Your task to perform on an android device: Clear all items from cart on newegg. Add "lenovo thinkpad" to the cart on newegg, then select checkout. Image 0: 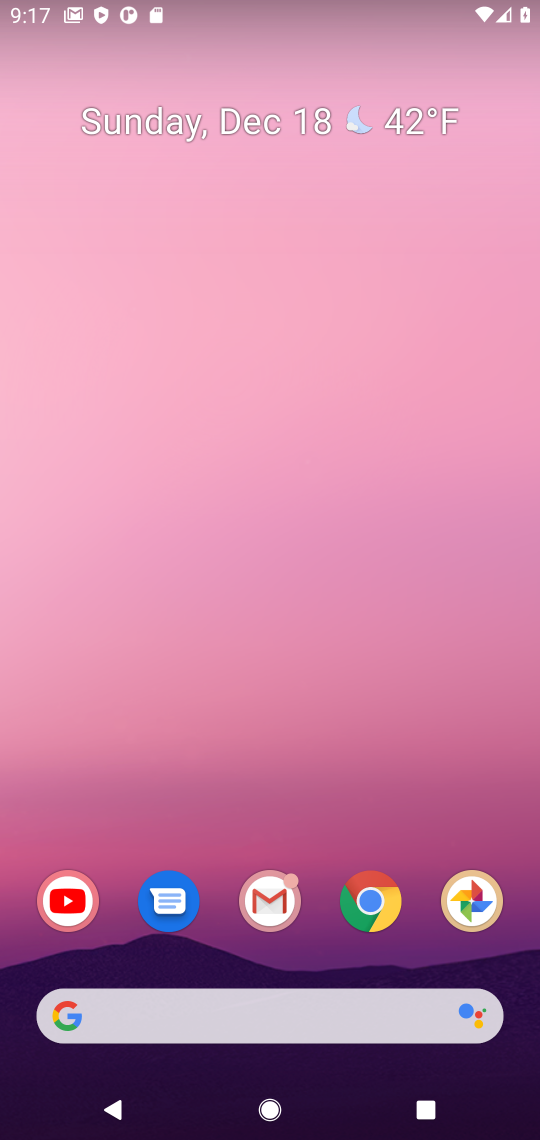
Step 0: click (349, 925)
Your task to perform on an android device: Clear all items from cart on newegg. Add "lenovo thinkpad" to the cart on newegg, then select checkout. Image 1: 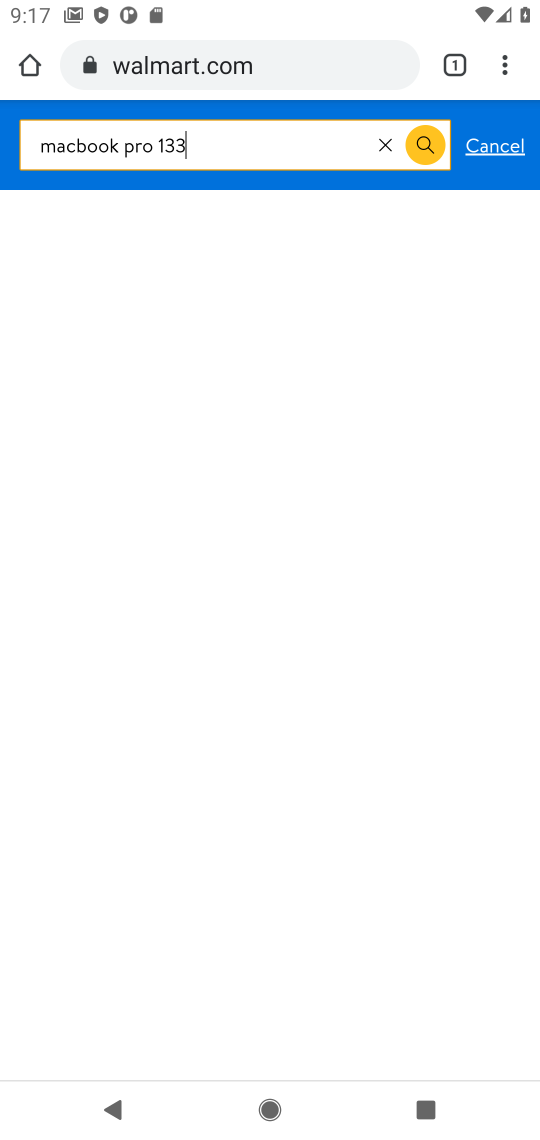
Step 1: click (242, 86)
Your task to perform on an android device: Clear all items from cart on newegg. Add "lenovo thinkpad" to the cart on newegg, then select checkout. Image 2: 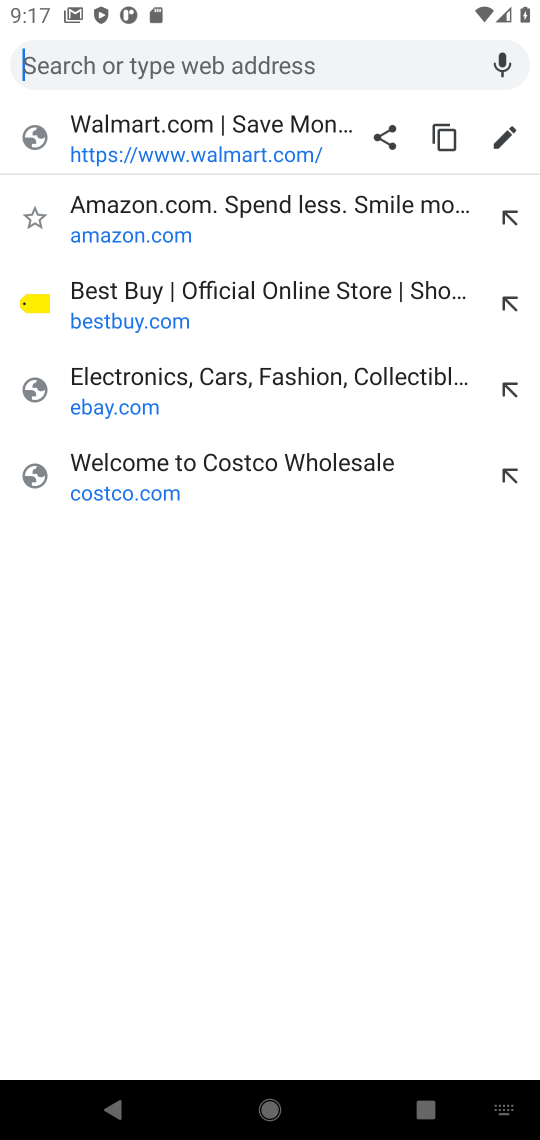
Step 2: type "newegg"
Your task to perform on an android device: Clear all items from cart on newegg. Add "lenovo thinkpad" to the cart on newegg, then select checkout. Image 3: 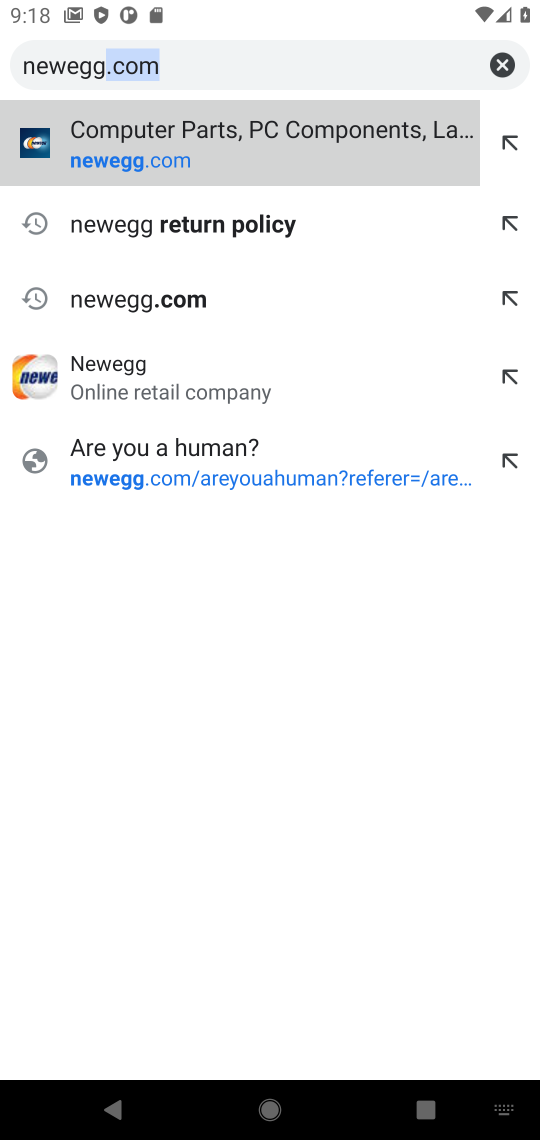
Step 3: click (187, 171)
Your task to perform on an android device: Clear all items from cart on newegg. Add "lenovo thinkpad" to the cart on newegg, then select checkout. Image 4: 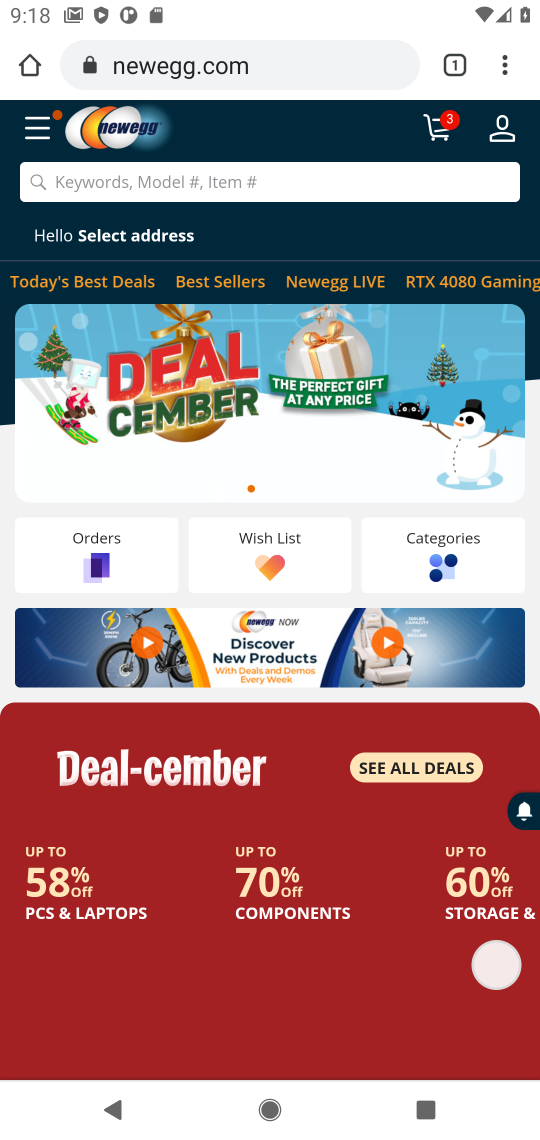
Step 4: click (214, 195)
Your task to perform on an android device: Clear all items from cart on newegg. Add "lenovo thinkpad" to the cart on newegg, then select checkout. Image 5: 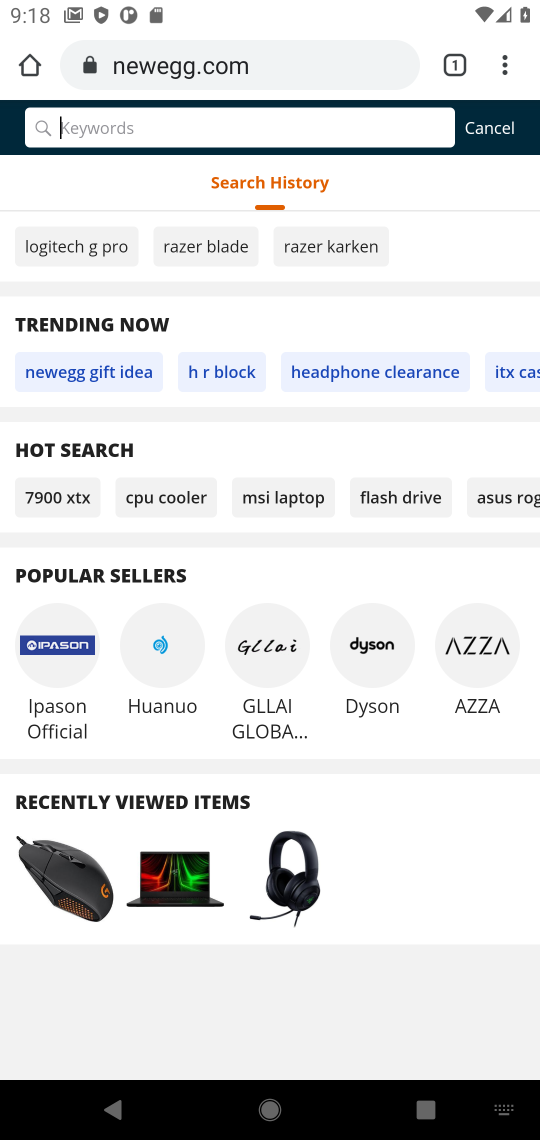
Step 5: type "lenovo thinkpad"
Your task to perform on an android device: Clear all items from cart on newegg. Add "lenovo thinkpad" to the cart on newegg, then select checkout. Image 6: 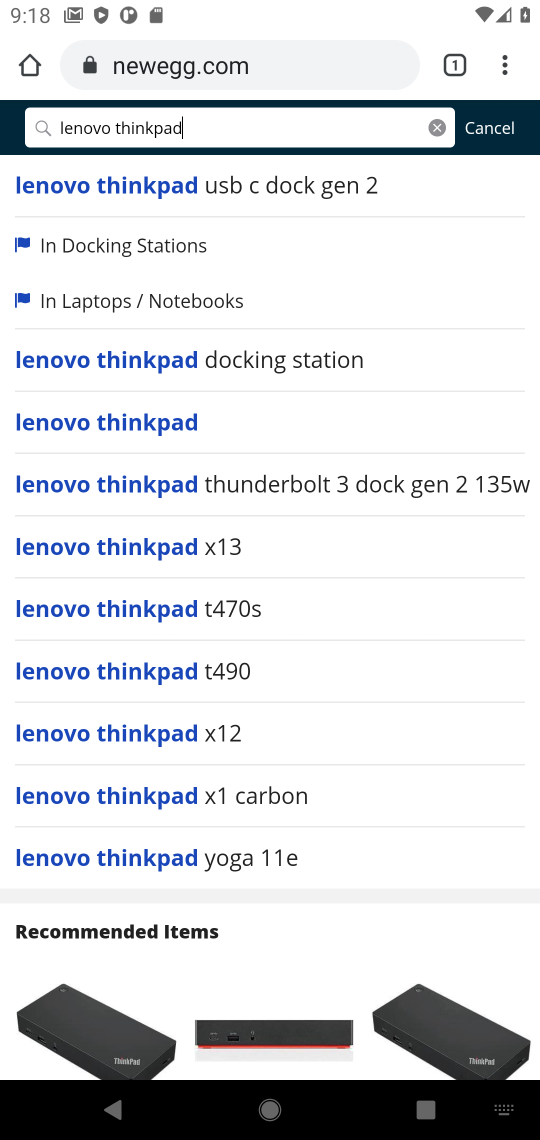
Step 6: click (107, 204)
Your task to perform on an android device: Clear all items from cart on newegg. Add "lenovo thinkpad" to the cart on newegg, then select checkout. Image 7: 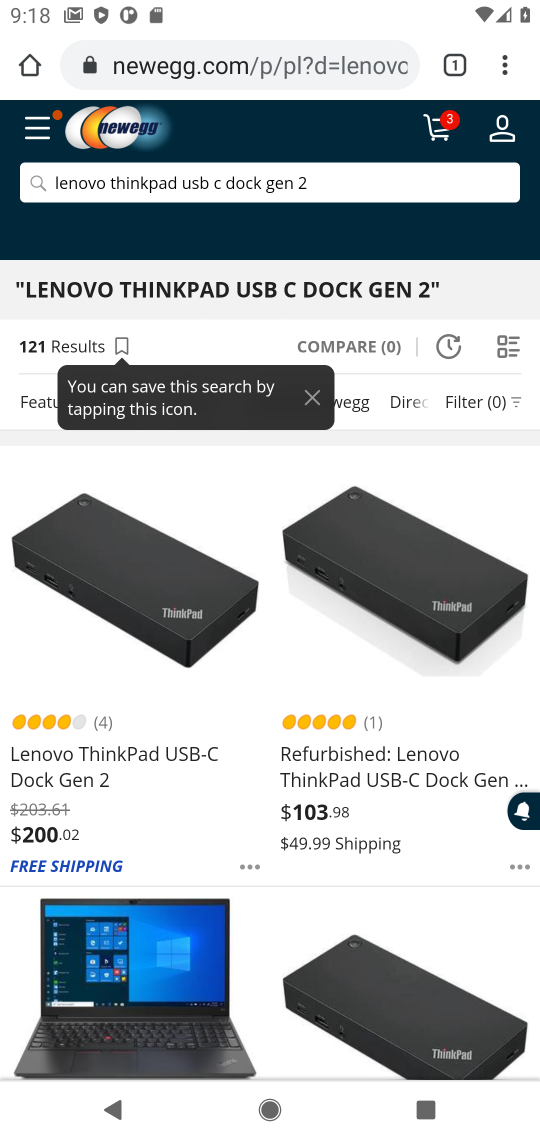
Step 7: click (159, 777)
Your task to perform on an android device: Clear all items from cart on newegg. Add "lenovo thinkpad" to the cart on newegg, then select checkout. Image 8: 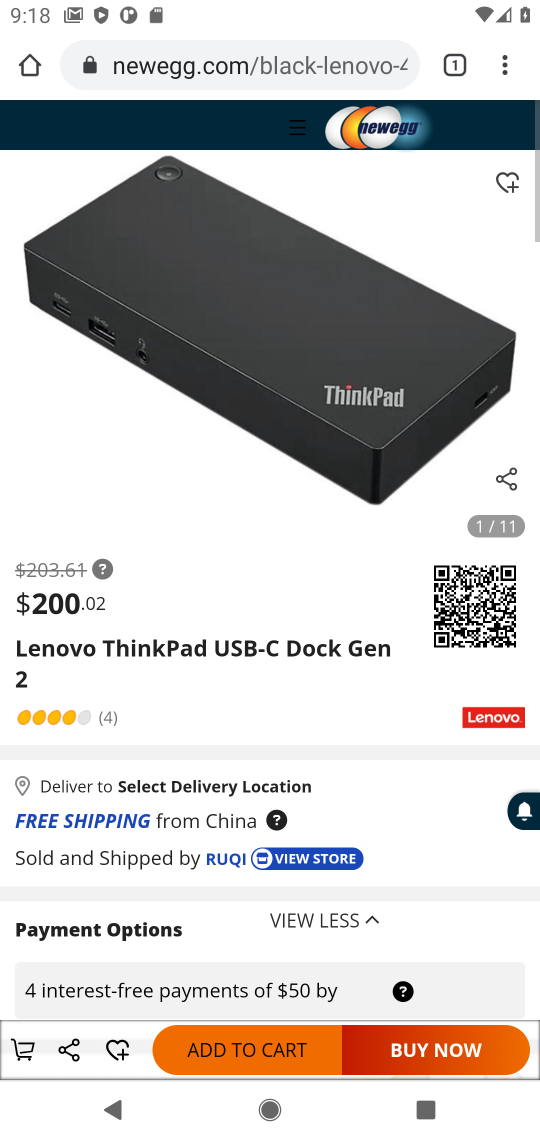
Step 8: click (187, 1046)
Your task to perform on an android device: Clear all items from cart on newegg. Add "lenovo thinkpad" to the cart on newegg, then select checkout. Image 9: 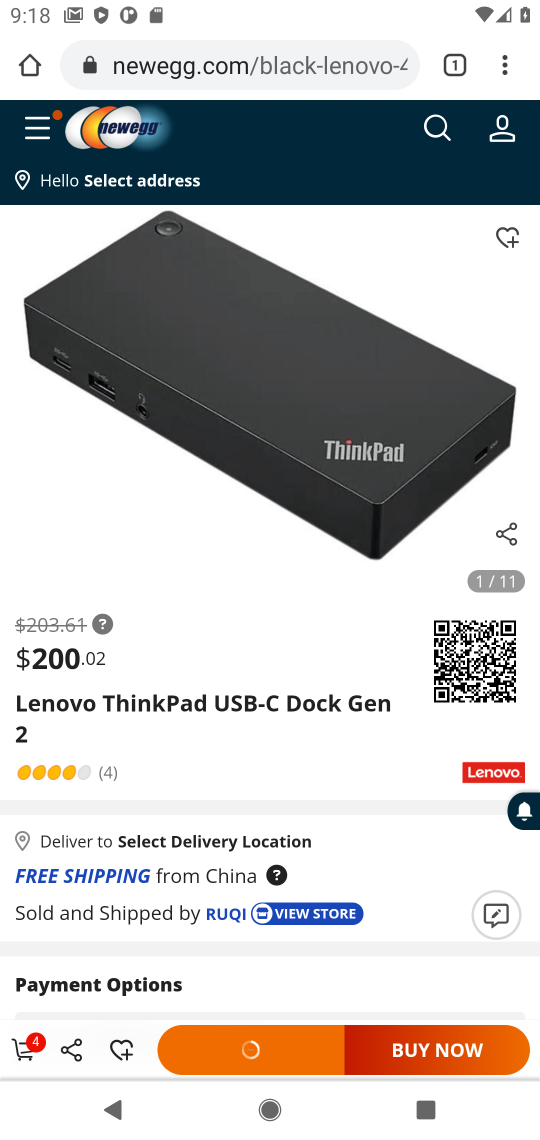
Step 9: task complete